Your task to perform on an android device: turn off data saver in the chrome app Image 0: 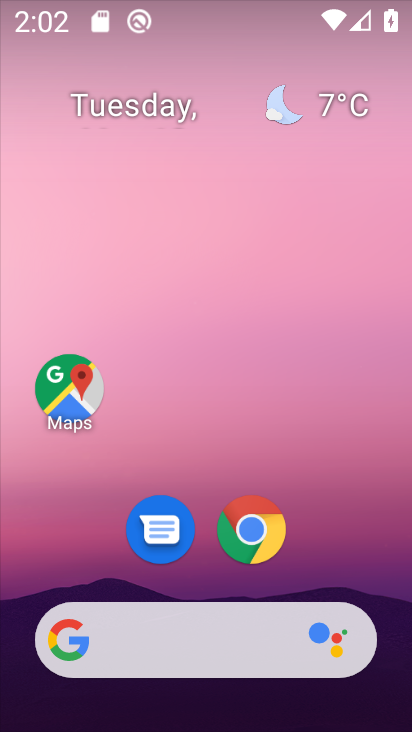
Step 0: click (254, 533)
Your task to perform on an android device: turn off data saver in the chrome app Image 1: 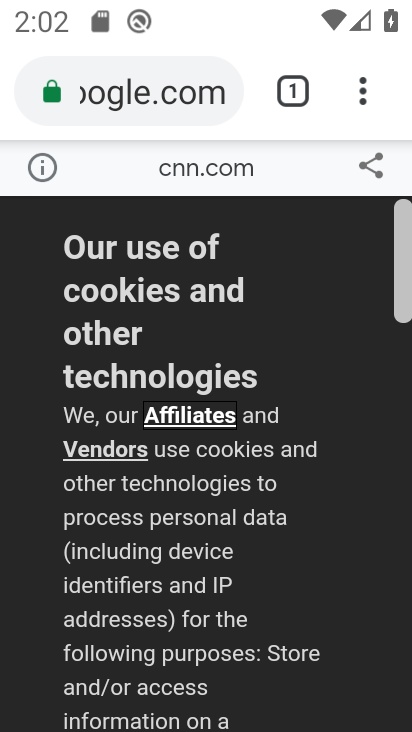
Step 1: click (367, 88)
Your task to perform on an android device: turn off data saver in the chrome app Image 2: 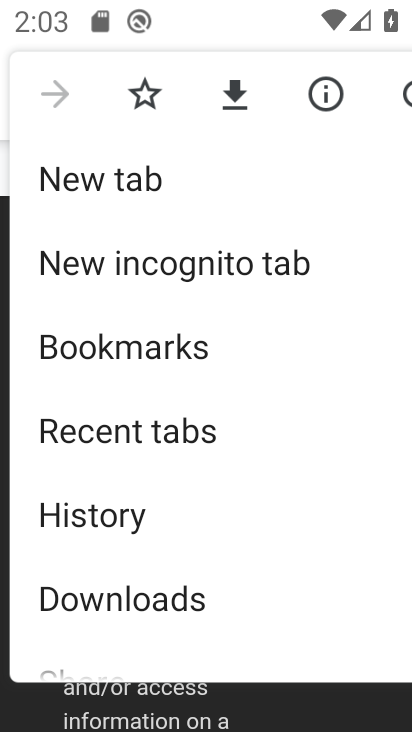
Step 2: drag from (205, 517) to (231, 402)
Your task to perform on an android device: turn off data saver in the chrome app Image 3: 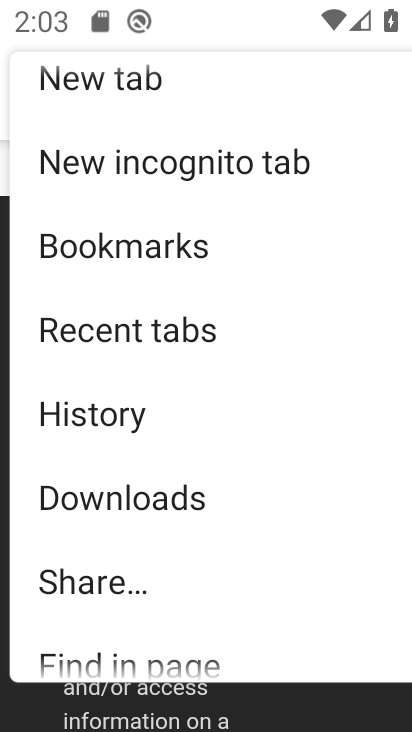
Step 3: drag from (193, 569) to (199, 417)
Your task to perform on an android device: turn off data saver in the chrome app Image 4: 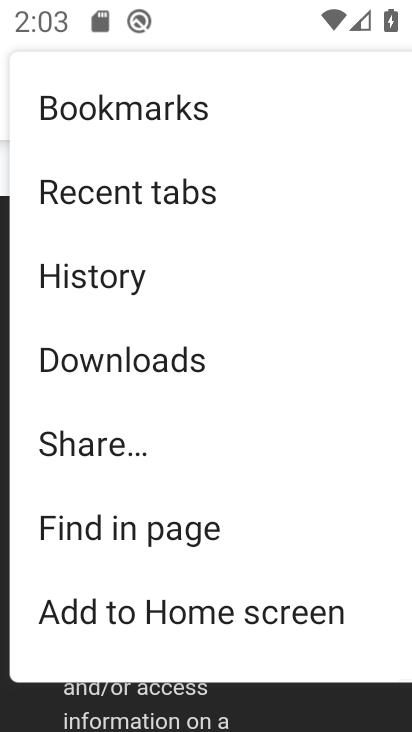
Step 4: drag from (190, 506) to (234, 357)
Your task to perform on an android device: turn off data saver in the chrome app Image 5: 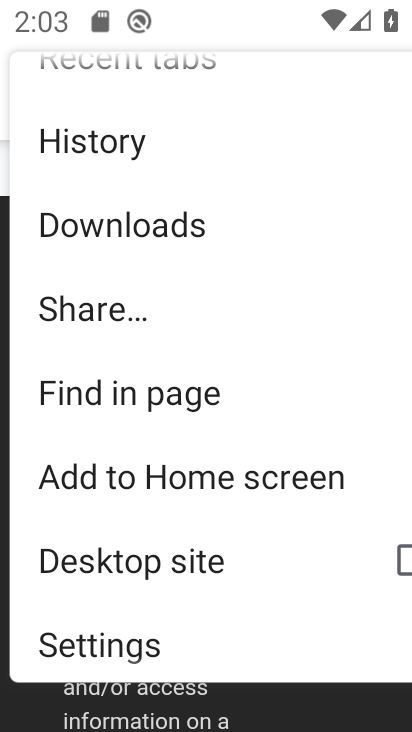
Step 5: drag from (173, 527) to (225, 367)
Your task to perform on an android device: turn off data saver in the chrome app Image 6: 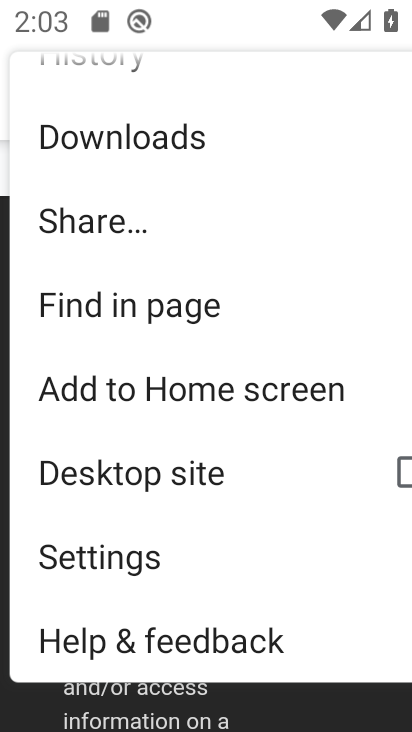
Step 6: click (103, 555)
Your task to perform on an android device: turn off data saver in the chrome app Image 7: 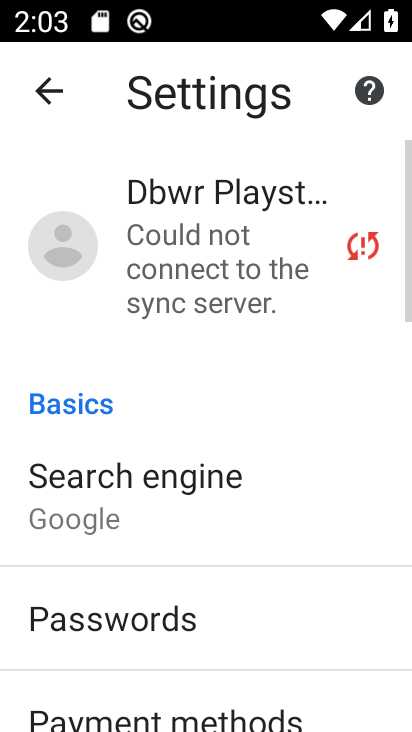
Step 7: drag from (154, 574) to (190, 421)
Your task to perform on an android device: turn off data saver in the chrome app Image 8: 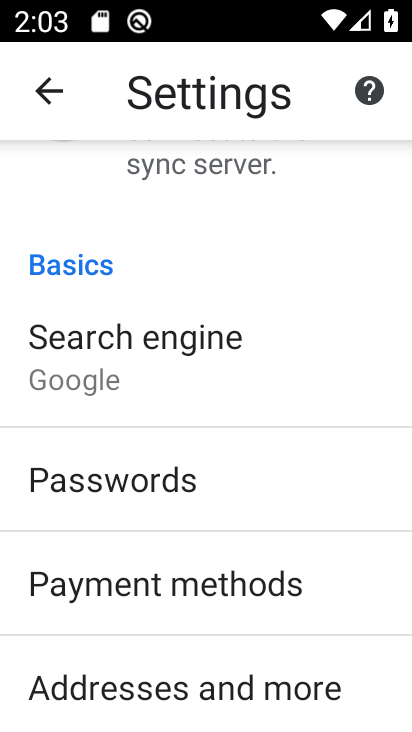
Step 8: drag from (150, 542) to (188, 395)
Your task to perform on an android device: turn off data saver in the chrome app Image 9: 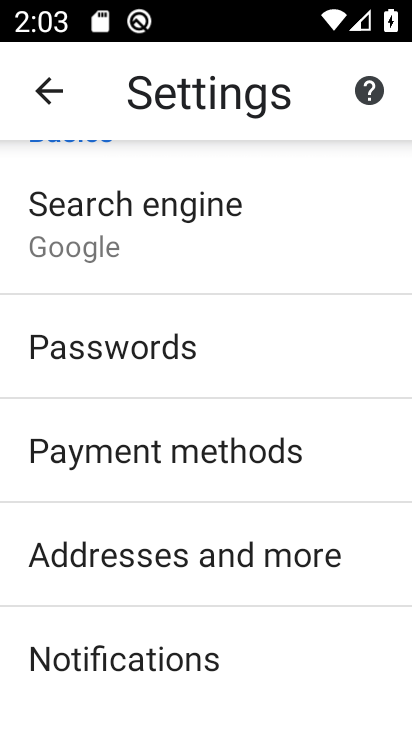
Step 9: drag from (120, 580) to (189, 433)
Your task to perform on an android device: turn off data saver in the chrome app Image 10: 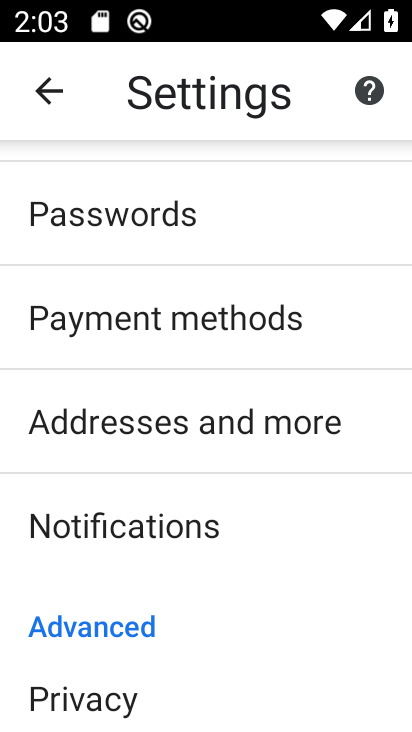
Step 10: drag from (123, 575) to (213, 428)
Your task to perform on an android device: turn off data saver in the chrome app Image 11: 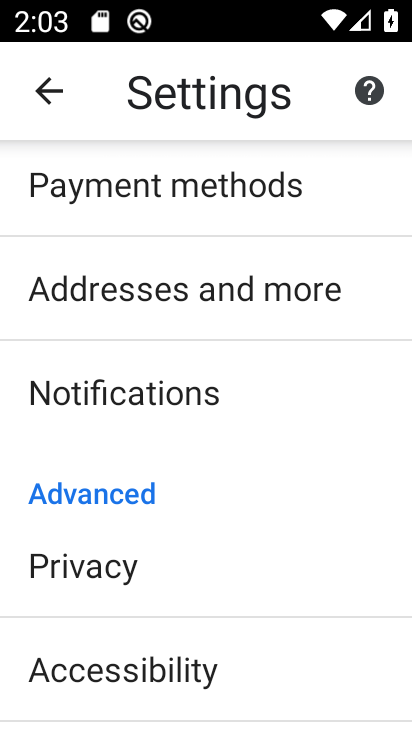
Step 11: drag from (142, 621) to (226, 462)
Your task to perform on an android device: turn off data saver in the chrome app Image 12: 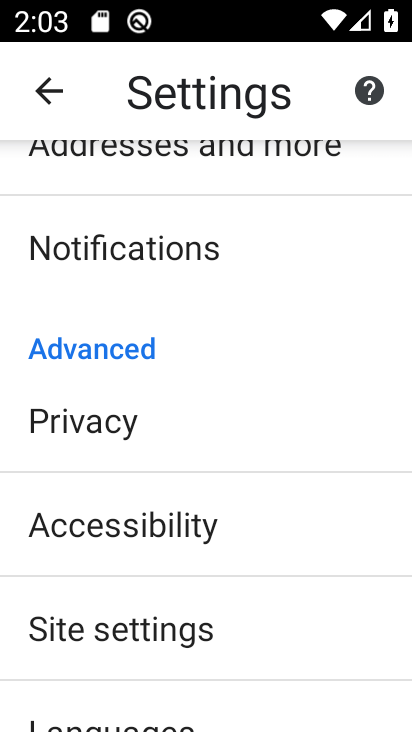
Step 12: drag from (152, 605) to (244, 464)
Your task to perform on an android device: turn off data saver in the chrome app Image 13: 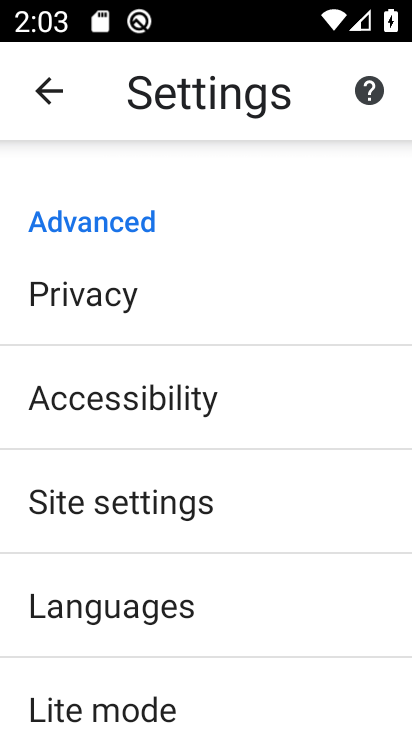
Step 13: drag from (154, 652) to (288, 458)
Your task to perform on an android device: turn off data saver in the chrome app Image 14: 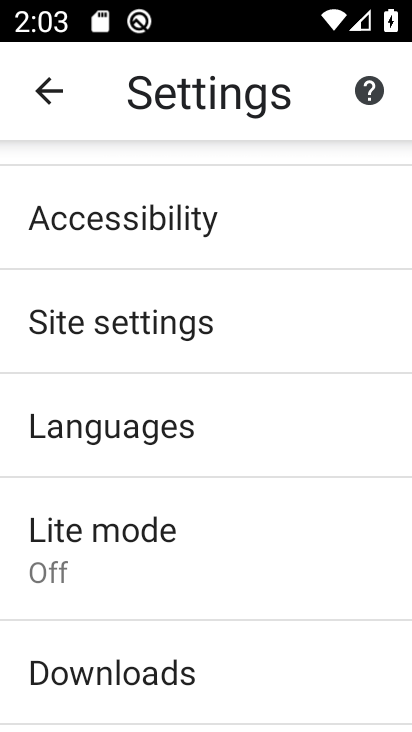
Step 14: click (167, 541)
Your task to perform on an android device: turn off data saver in the chrome app Image 15: 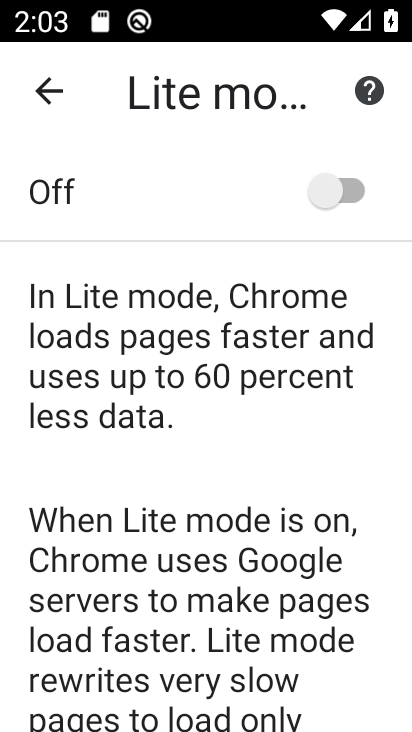
Step 15: task complete